Your task to perform on an android device: Open display settings Image 0: 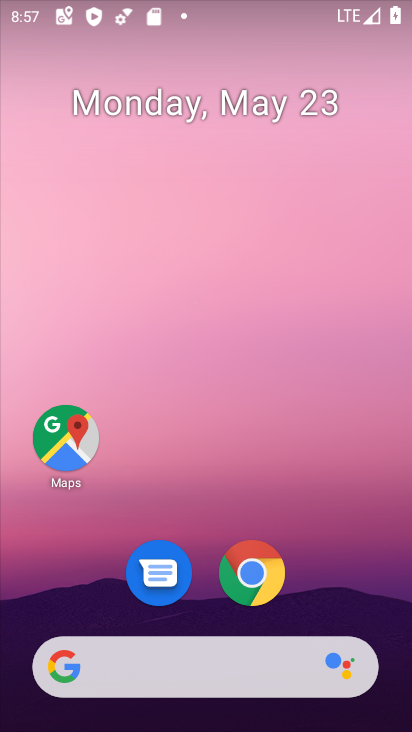
Step 0: drag from (207, 495) to (210, 43)
Your task to perform on an android device: Open display settings Image 1: 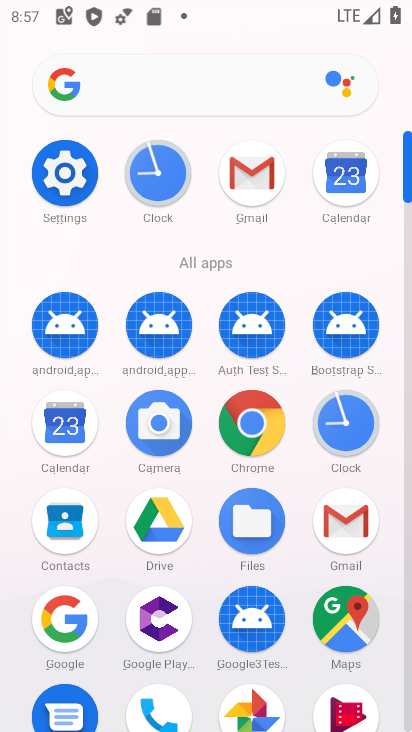
Step 1: click (80, 171)
Your task to perform on an android device: Open display settings Image 2: 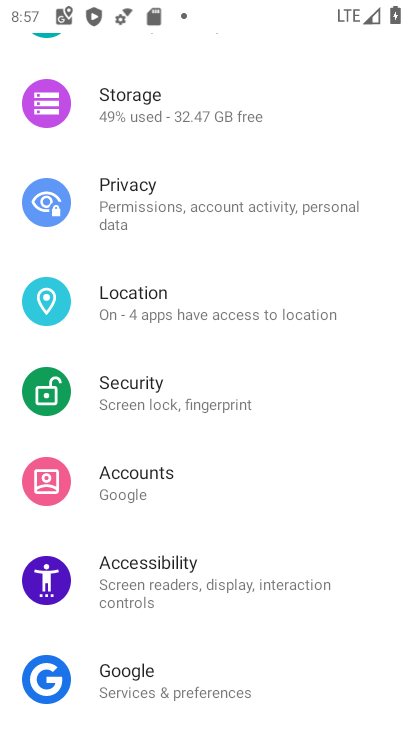
Step 2: drag from (236, 151) to (208, 680)
Your task to perform on an android device: Open display settings Image 3: 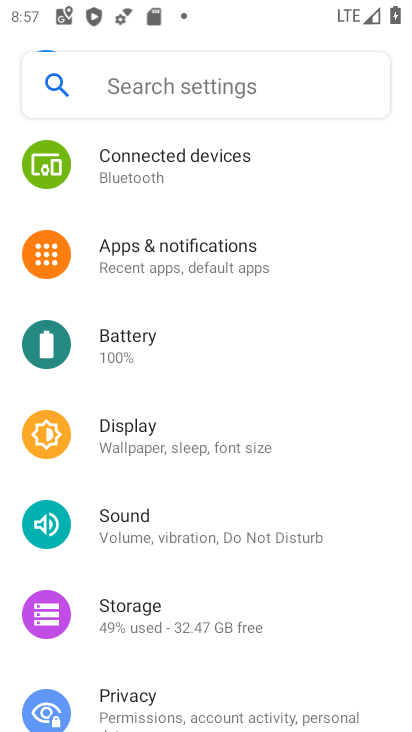
Step 3: click (193, 429)
Your task to perform on an android device: Open display settings Image 4: 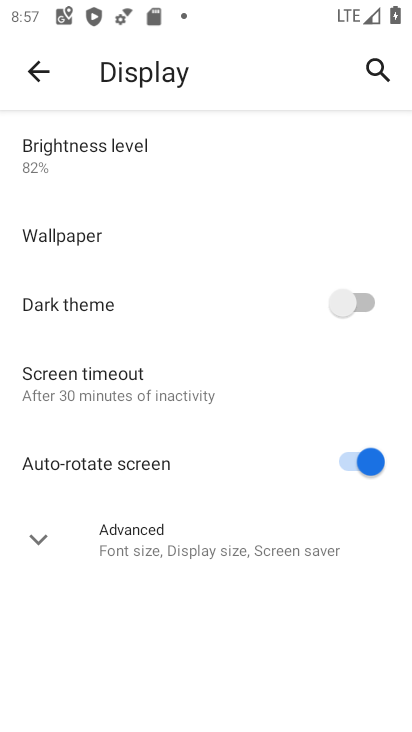
Step 4: click (37, 534)
Your task to perform on an android device: Open display settings Image 5: 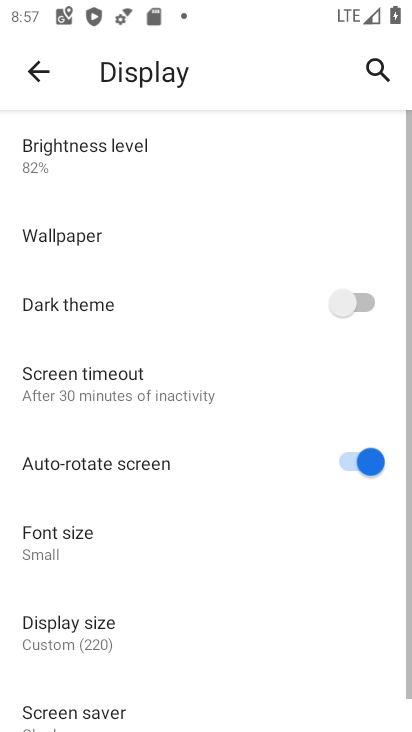
Step 5: task complete